Your task to perform on an android device: Toggle the flashlight Image 0: 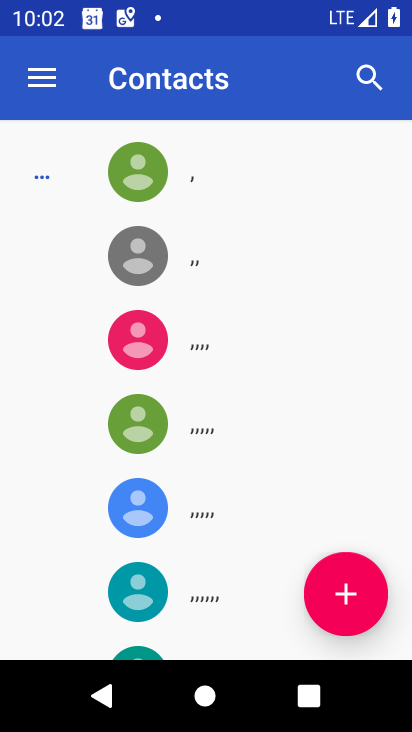
Step 0: press back button
Your task to perform on an android device: Toggle the flashlight Image 1: 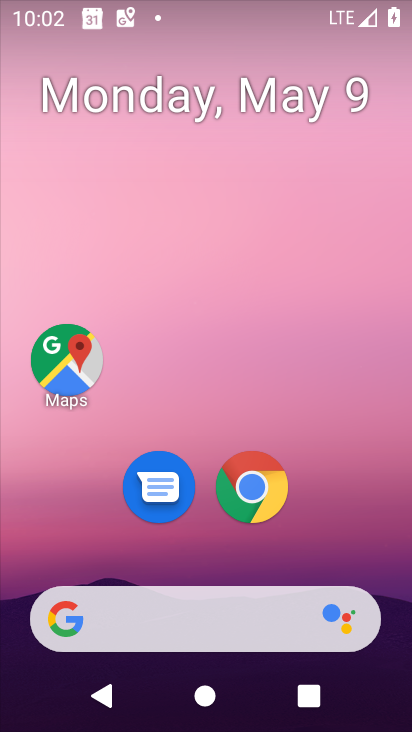
Step 1: drag from (328, 535) to (237, 33)
Your task to perform on an android device: Toggle the flashlight Image 2: 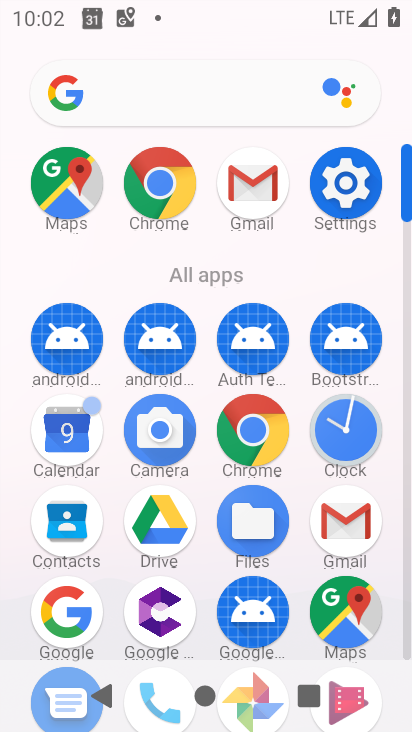
Step 2: drag from (11, 578) to (3, 240)
Your task to perform on an android device: Toggle the flashlight Image 3: 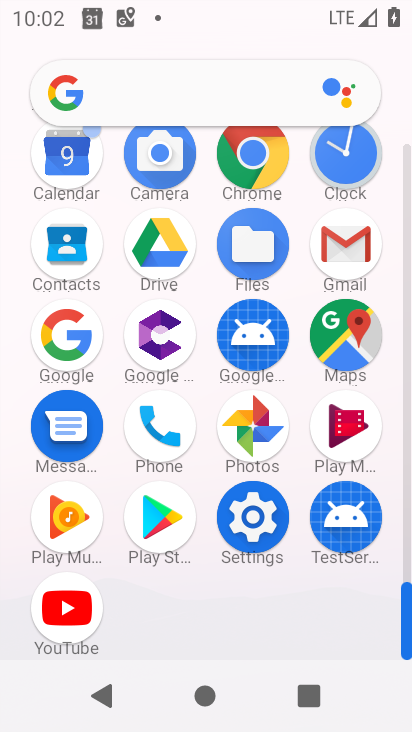
Step 3: click (253, 514)
Your task to perform on an android device: Toggle the flashlight Image 4: 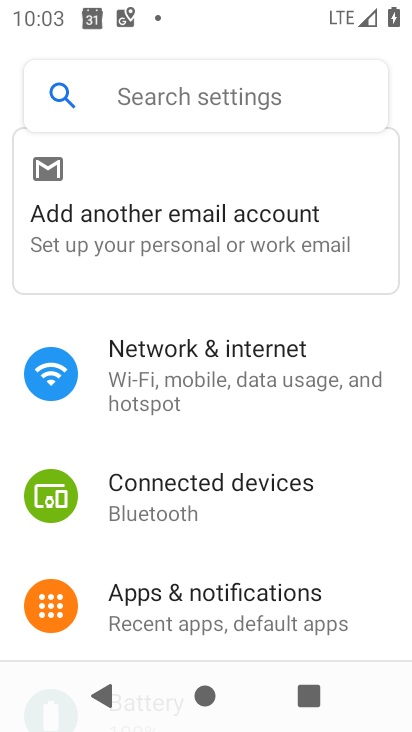
Step 4: click (235, 363)
Your task to perform on an android device: Toggle the flashlight Image 5: 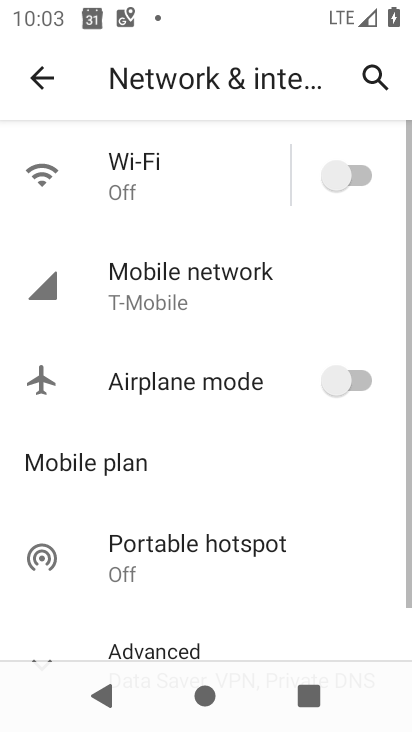
Step 5: drag from (247, 529) to (228, 91)
Your task to perform on an android device: Toggle the flashlight Image 6: 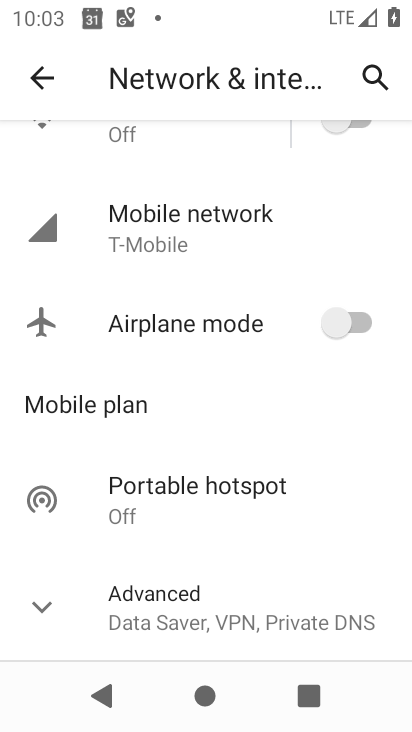
Step 6: click (25, 616)
Your task to perform on an android device: Toggle the flashlight Image 7: 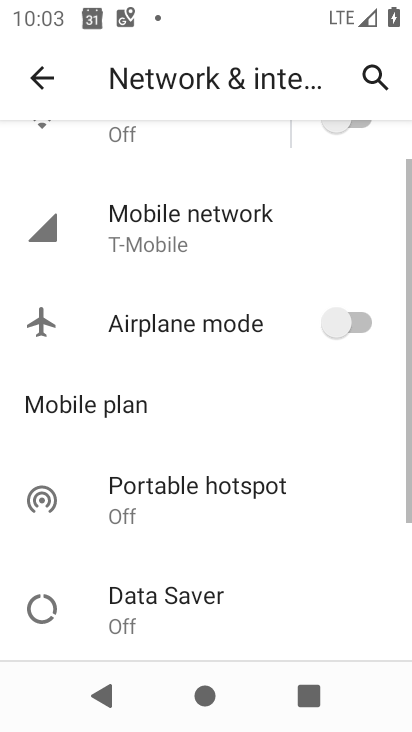
Step 7: task complete